Your task to perform on an android device: open wifi settings Image 0: 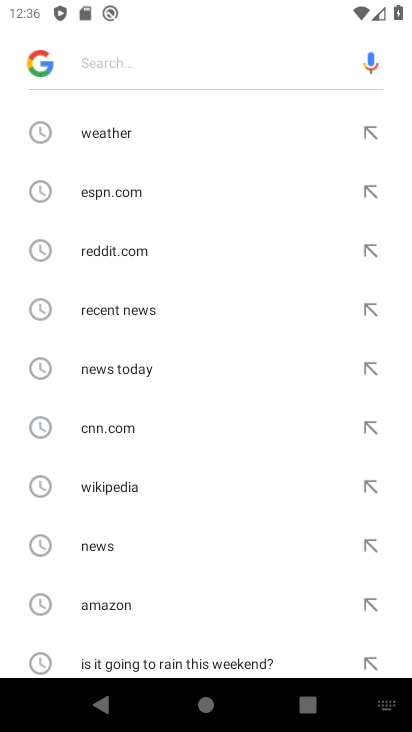
Step 0: press home button
Your task to perform on an android device: open wifi settings Image 1: 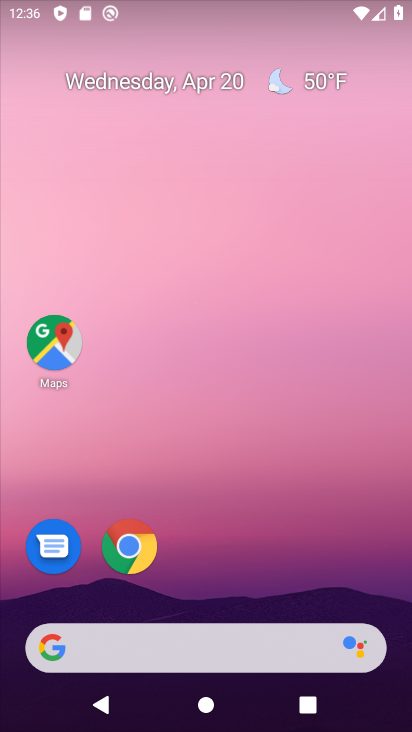
Step 1: drag from (50, 135) to (100, 639)
Your task to perform on an android device: open wifi settings Image 2: 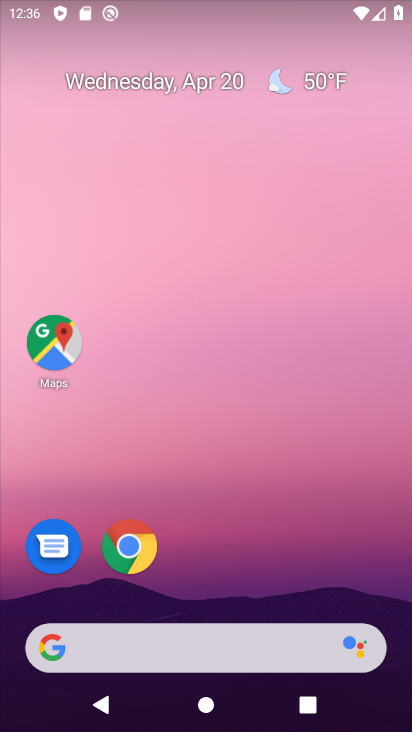
Step 2: drag from (80, 7) to (105, 532)
Your task to perform on an android device: open wifi settings Image 3: 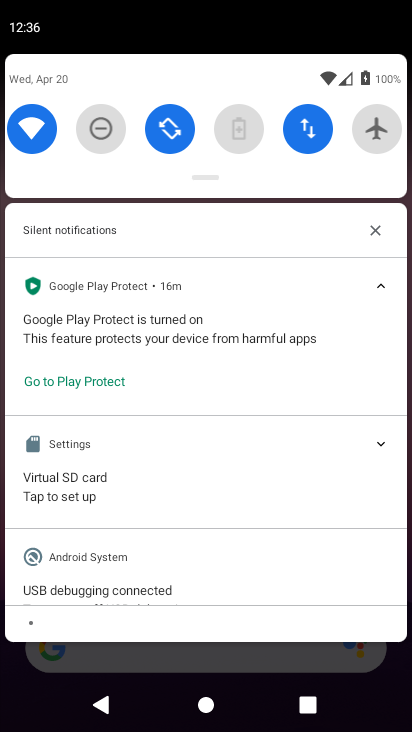
Step 3: click (35, 117)
Your task to perform on an android device: open wifi settings Image 4: 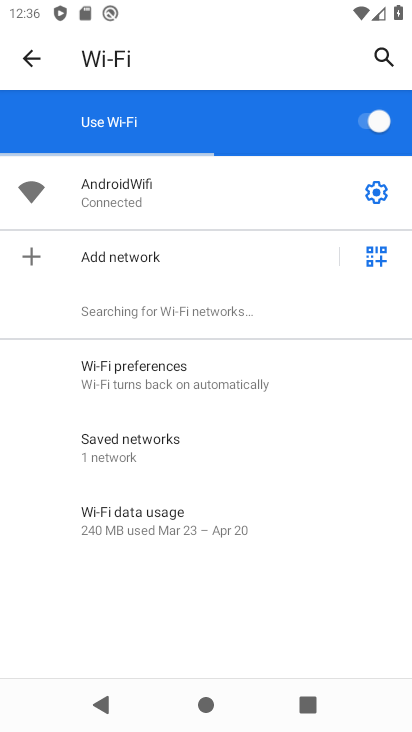
Step 4: task complete